Your task to perform on an android device: delete browsing data in the chrome app Image 0: 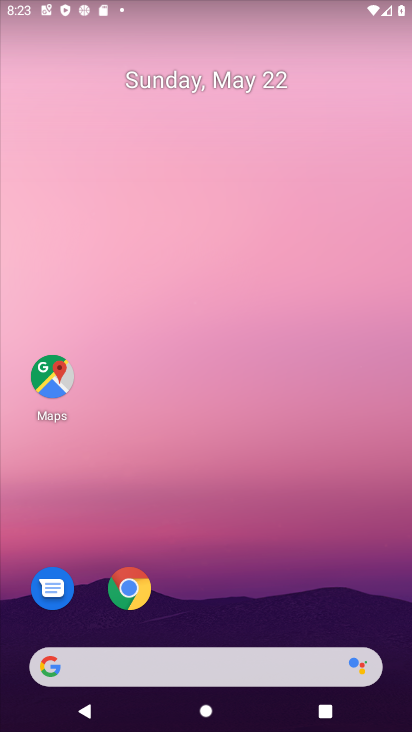
Step 0: click (127, 586)
Your task to perform on an android device: delete browsing data in the chrome app Image 1: 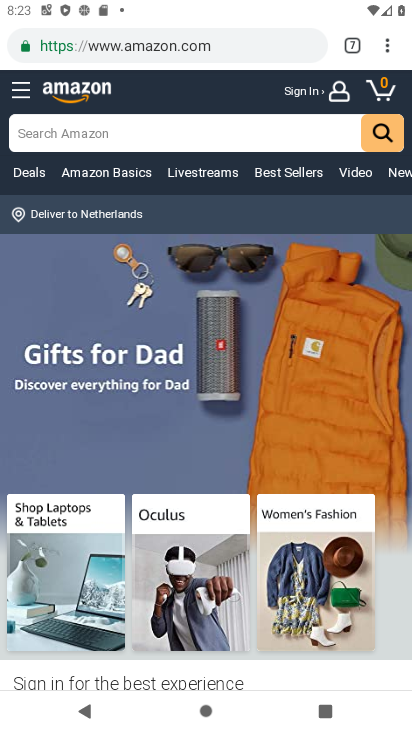
Step 1: click (382, 41)
Your task to perform on an android device: delete browsing data in the chrome app Image 2: 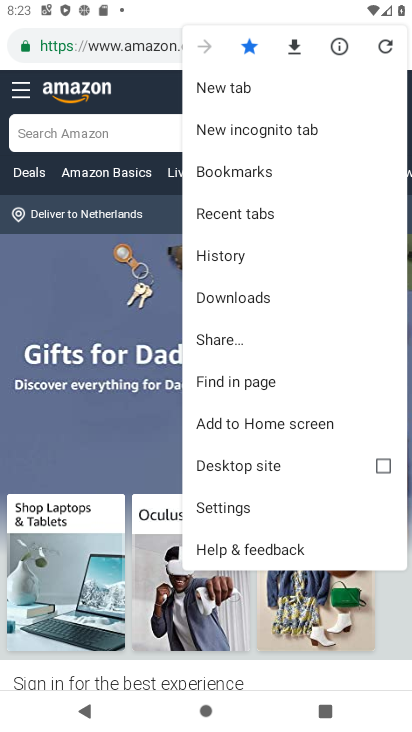
Step 2: click (233, 259)
Your task to perform on an android device: delete browsing data in the chrome app Image 3: 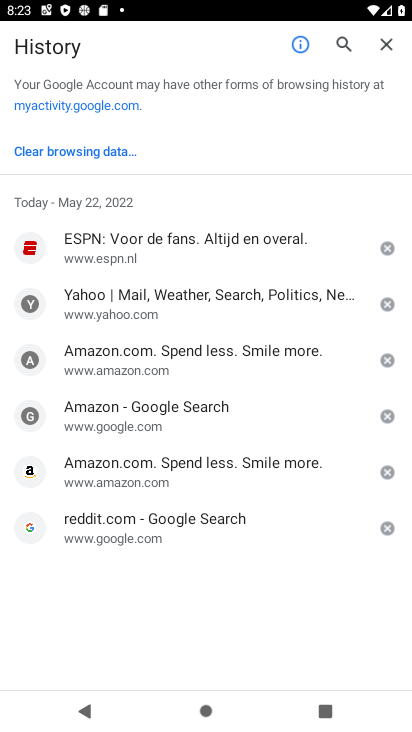
Step 3: click (33, 143)
Your task to perform on an android device: delete browsing data in the chrome app Image 4: 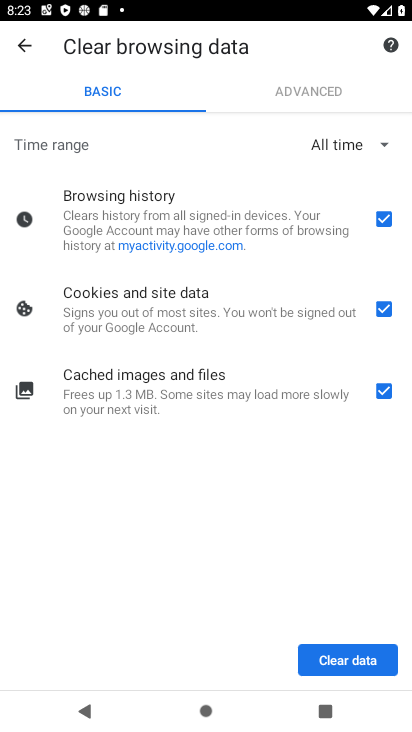
Step 4: click (351, 660)
Your task to perform on an android device: delete browsing data in the chrome app Image 5: 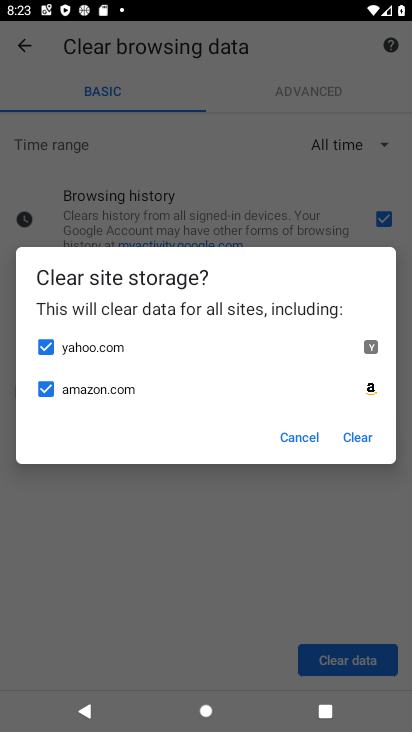
Step 5: click (343, 441)
Your task to perform on an android device: delete browsing data in the chrome app Image 6: 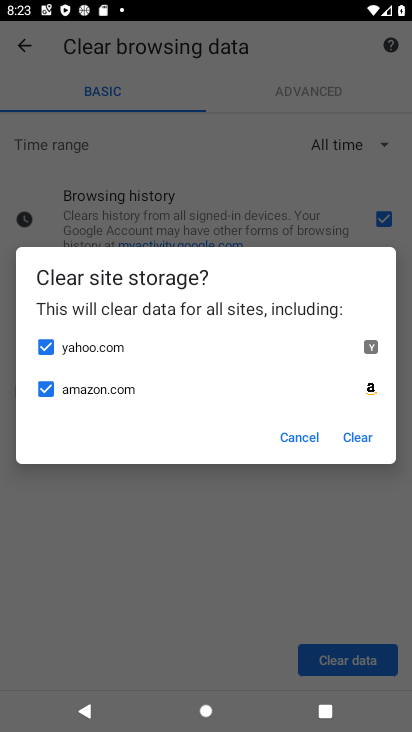
Step 6: click (350, 432)
Your task to perform on an android device: delete browsing data in the chrome app Image 7: 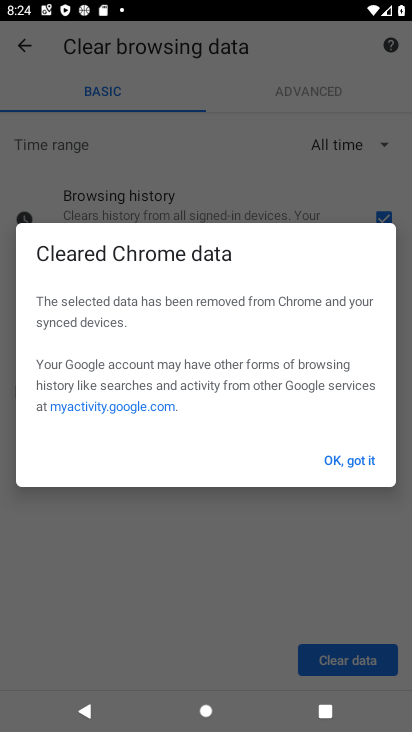
Step 7: click (354, 467)
Your task to perform on an android device: delete browsing data in the chrome app Image 8: 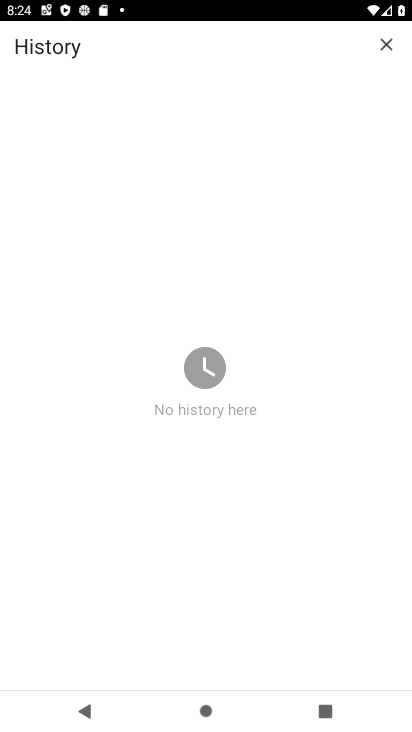
Step 8: task complete